Your task to perform on an android device: turn off picture-in-picture Image 0: 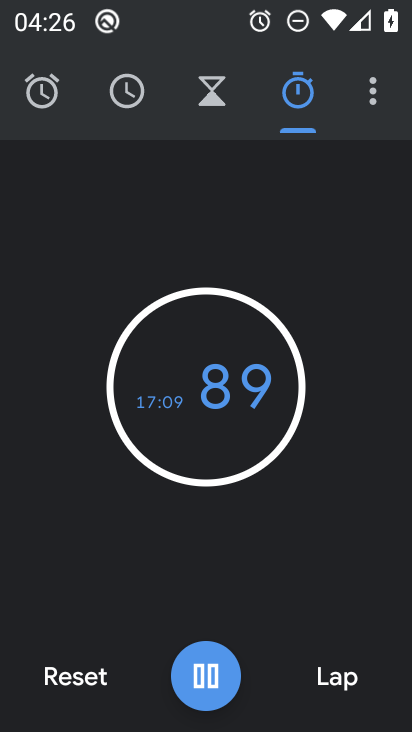
Step 0: press home button
Your task to perform on an android device: turn off picture-in-picture Image 1: 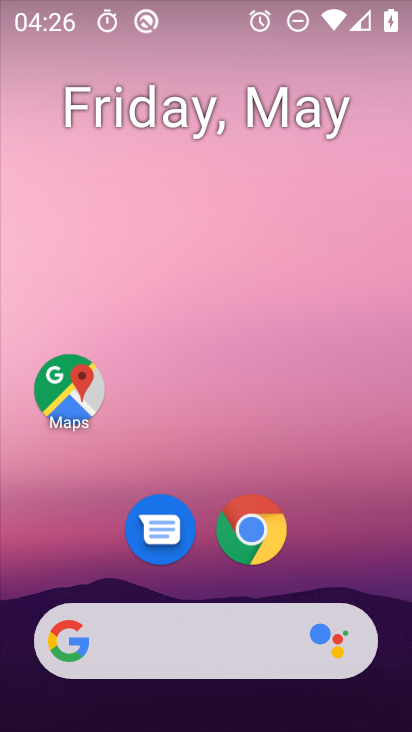
Step 1: click (258, 532)
Your task to perform on an android device: turn off picture-in-picture Image 2: 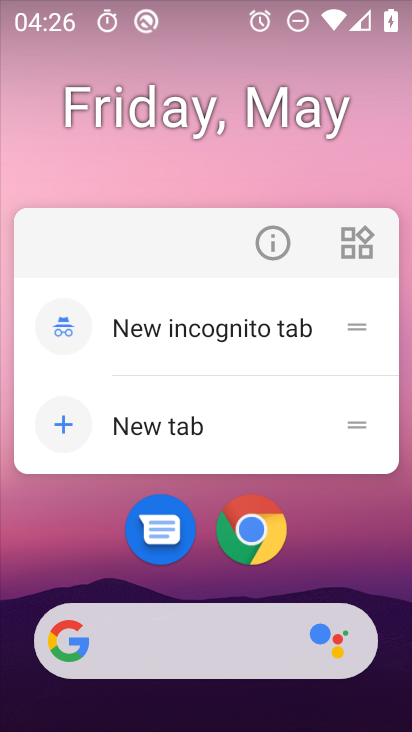
Step 2: click (281, 240)
Your task to perform on an android device: turn off picture-in-picture Image 3: 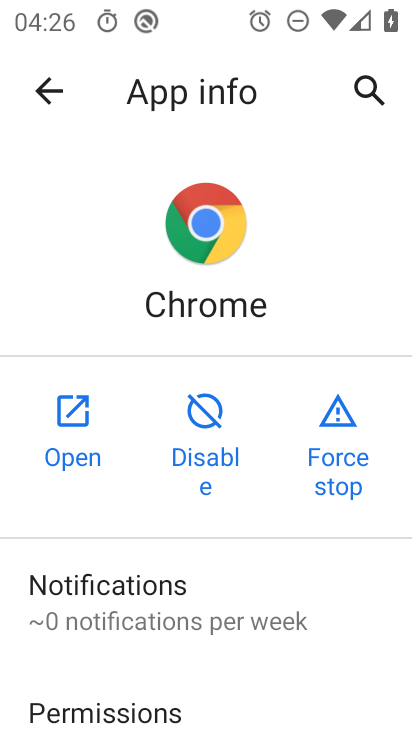
Step 3: drag from (252, 685) to (293, 354)
Your task to perform on an android device: turn off picture-in-picture Image 4: 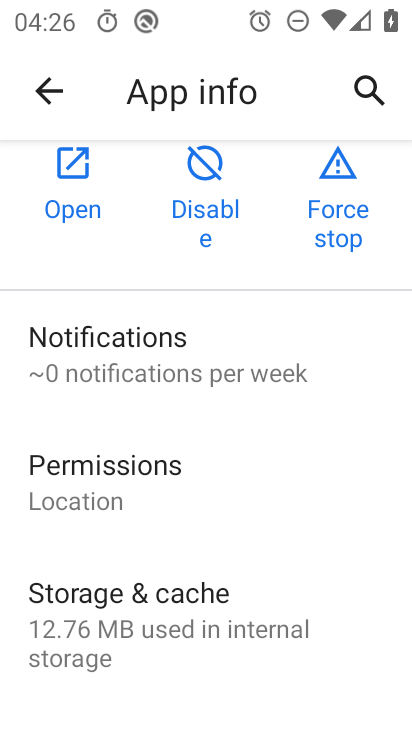
Step 4: drag from (304, 695) to (329, 309)
Your task to perform on an android device: turn off picture-in-picture Image 5: 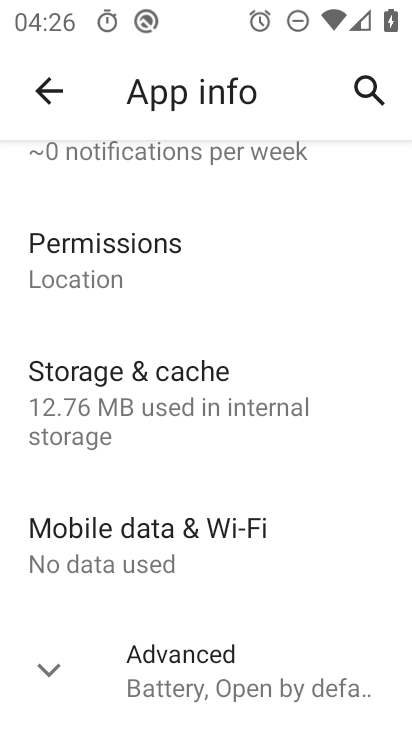
Step 5: drag from (296, 630) to (299, 381)
Your task to perform on an android device: turn off picture-in-picture Image 6: 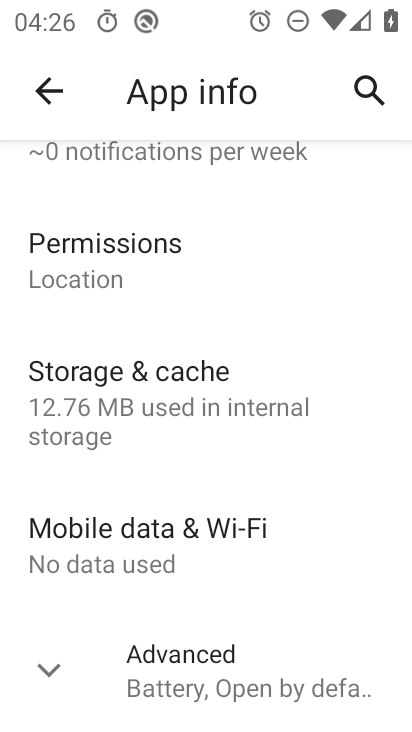
Step 6: click (36, 677)
Your task to perform on an android device: turn off picture-in-picture Image 7: 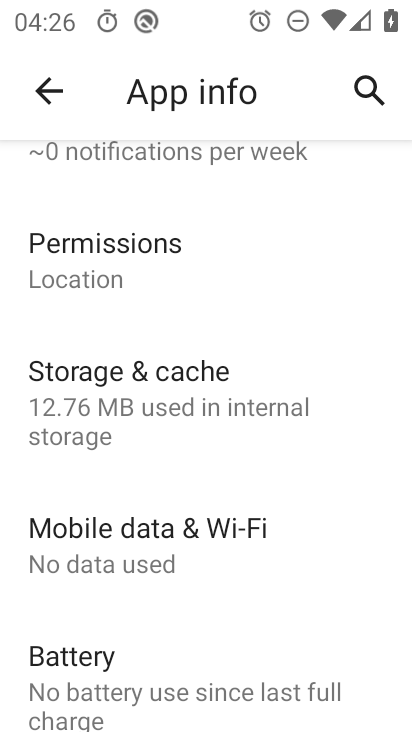
Step 7: drag from (279, 609) to (301, 385)
Your task to perform on an android device: turn off picture-in-picture Image 8: 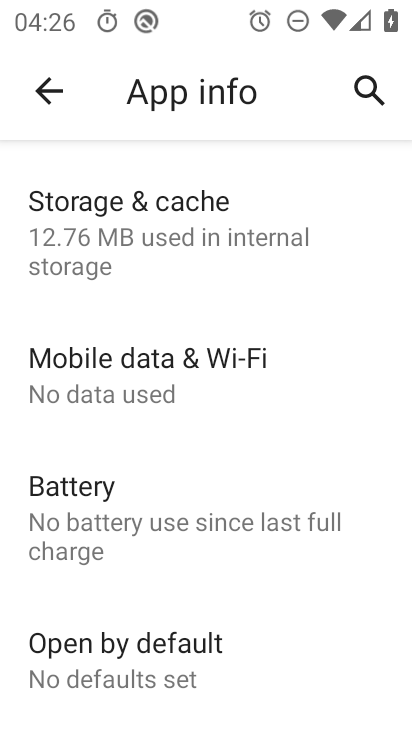
Step 8: drag from (295, 683) to (330, 373)
Your task to perform on an android device: turn off picture-in-picture Image 9: 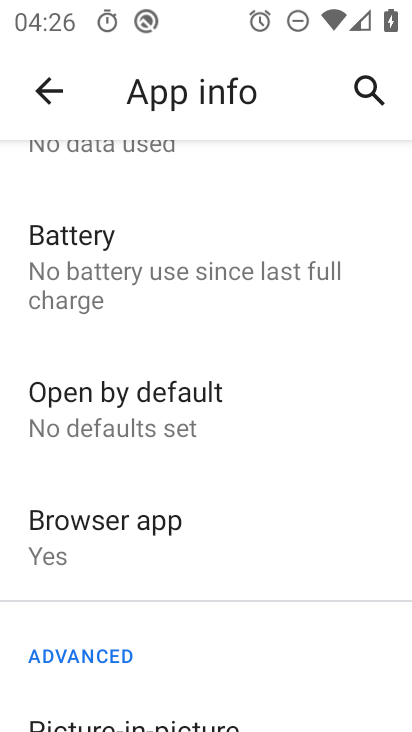
Step 9: drag from (238, 658) to (247, 392)
Your task to perform on an android device: turn off picture-in-picture Image 10: 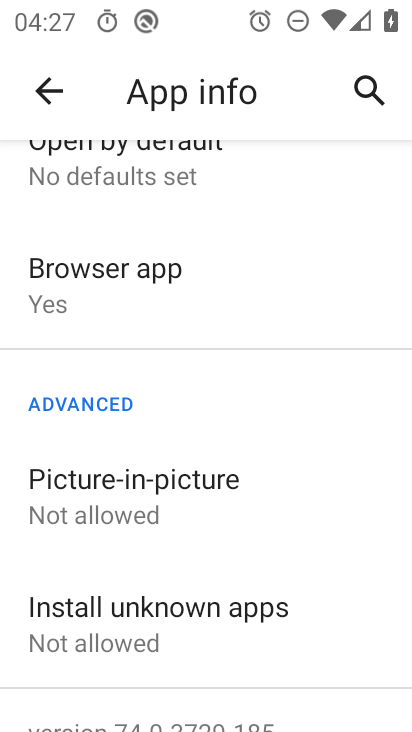
Step 10: click (116, 491)
Your task to perform on an android device: turn off picture-in-picture Image 11: 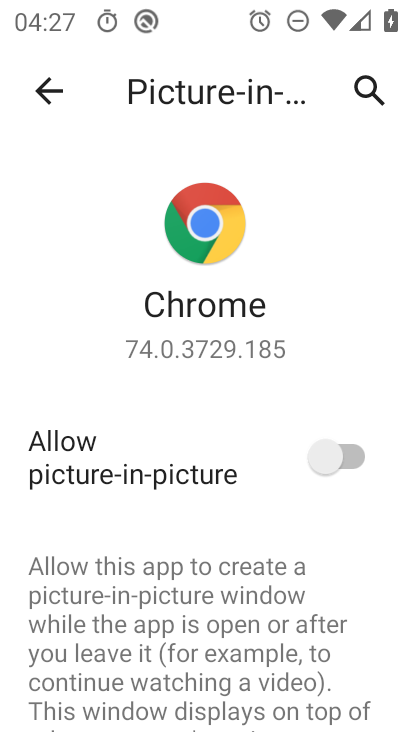
Step 11: task complete